Your task to perform on an android device: Search for the best rated vacuums on Target Image 0: 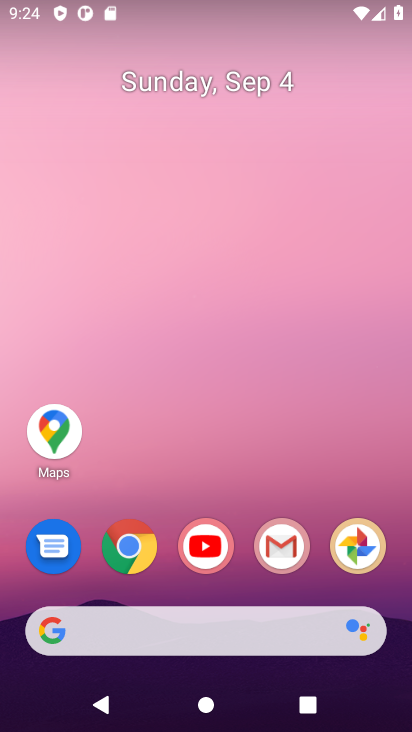
Step 0: click (121, 547)
Your task to perform on an android device: Search for the best rated vacuums on Target Image 1: 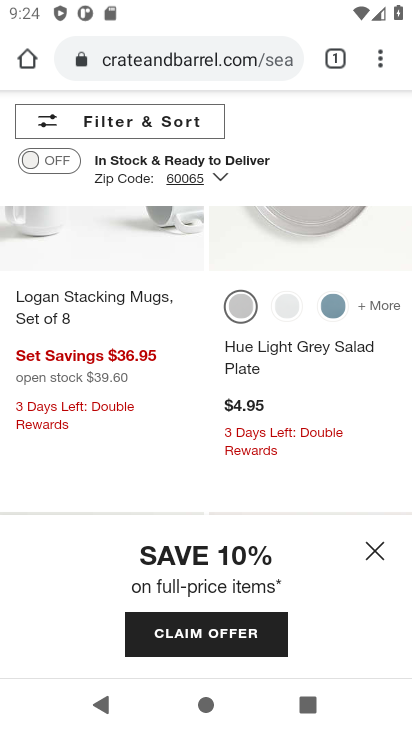
Step 1: click (164, 53)
Your task to perform on an android device: Search for the best rated vacuums on Target Image 2: 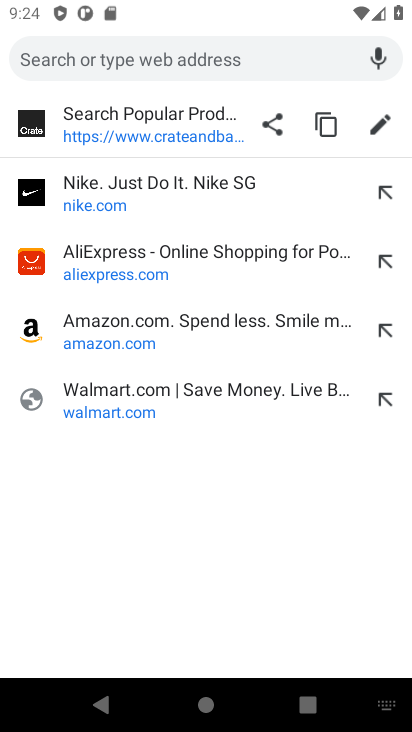
Step 2: type "taget"
Your task to perform on an android device: Search for the best rated vacuums on Target Image 3: 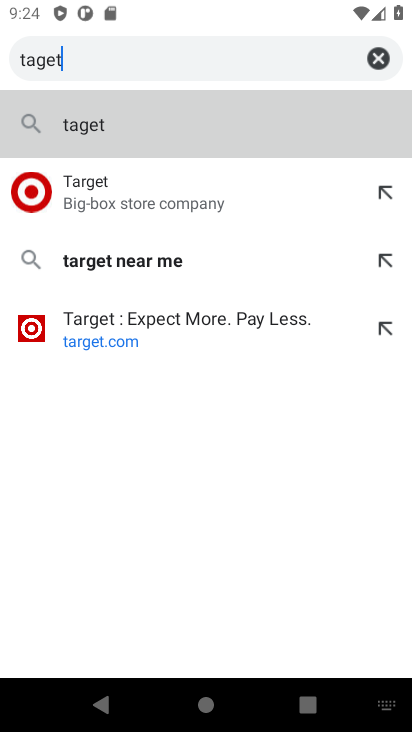
Step 3: click (104, 209)
Your task to perform on an android device: Search for the best rated vacuums on Target Image 4: 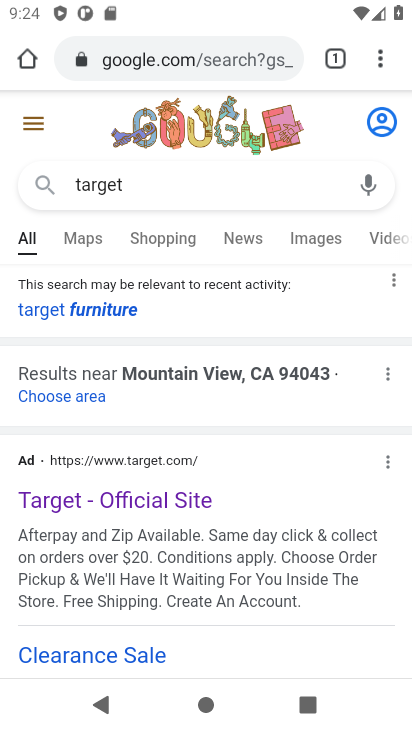
Step 4: click (107, 512)
Your task to perform on an android device: Search for the best rated vacuums on Target Image 5: 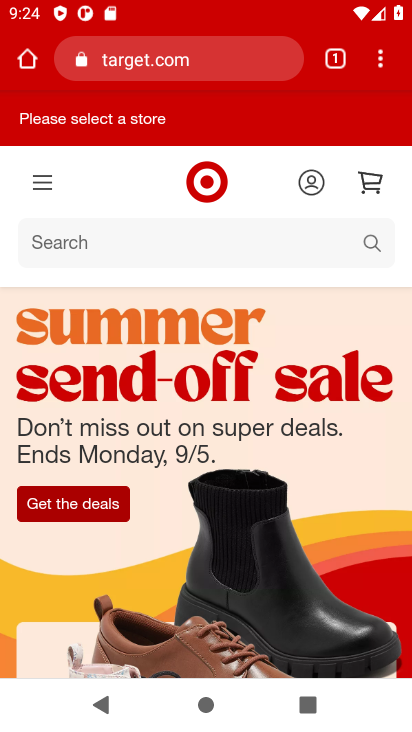
Step 5: click (362, 244)
Your task to perform on an android device: Search for the best rated vacuums on Target Image 6: 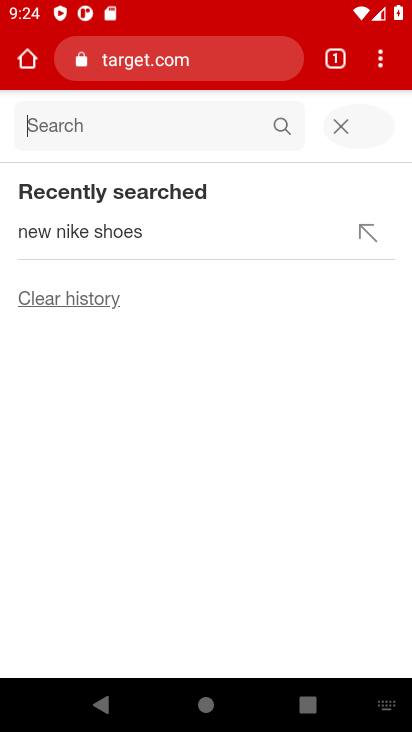
Step 6: type "best rated vacuums"
Your task to perform on an android device: Search for the best rated vacuums on Target Image 7: 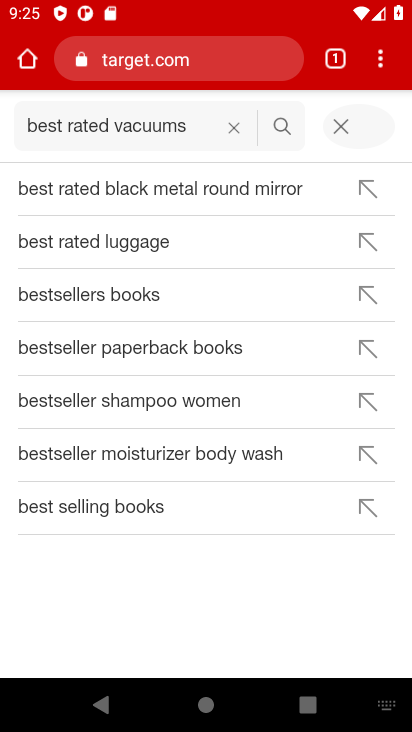
Step 7: click (284, 128)
Your task to perform on an android device: Search for the best rated vacuums on Target Image 8: 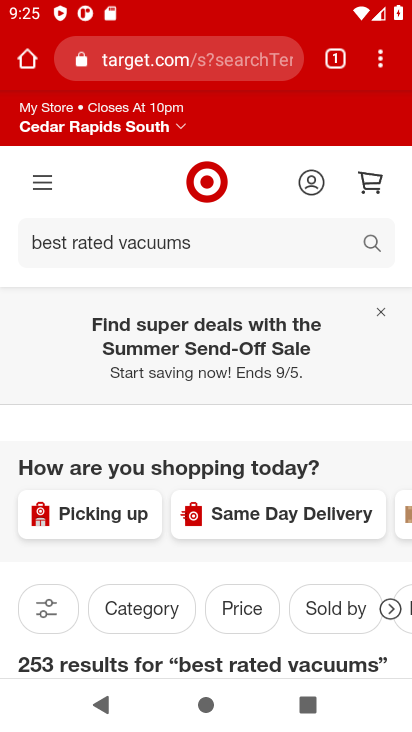
Step 8: task complete